Your task to perform on an android device: Go to Maps Image 0: 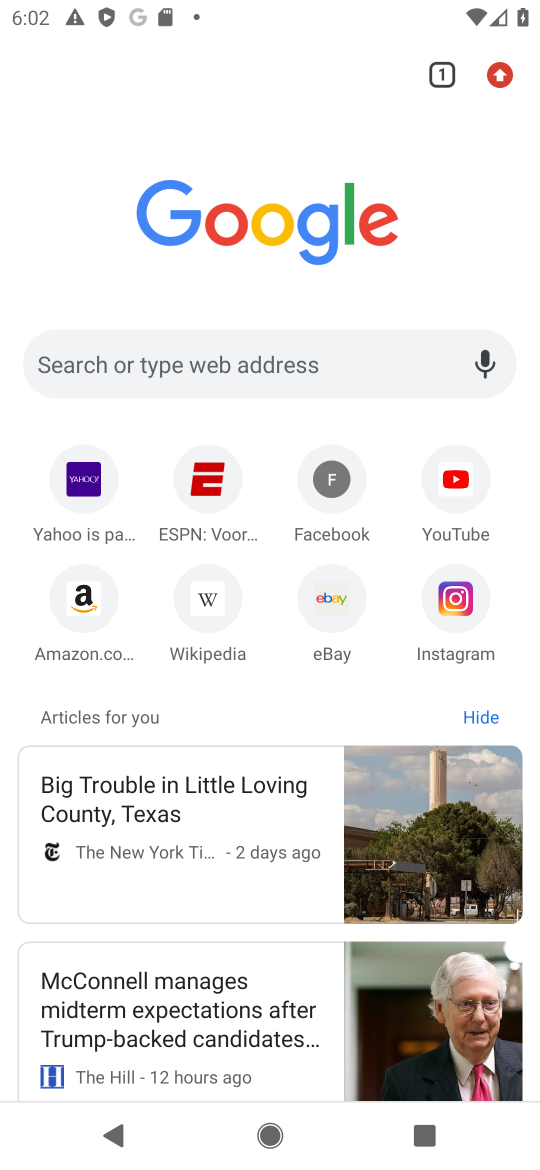
Step 0: press home button
Your task to perform on an android device: Go to Maps Image 1: 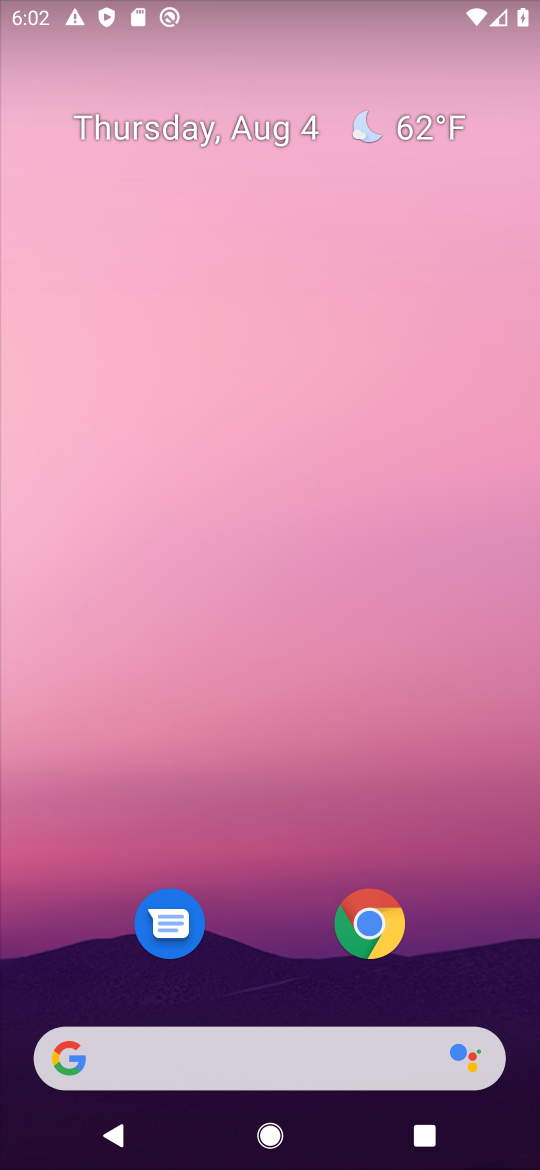
Step 1: drag from (496, 958) to (404, 396)
Your task to perform on an android device: Go to Maps Image 2: 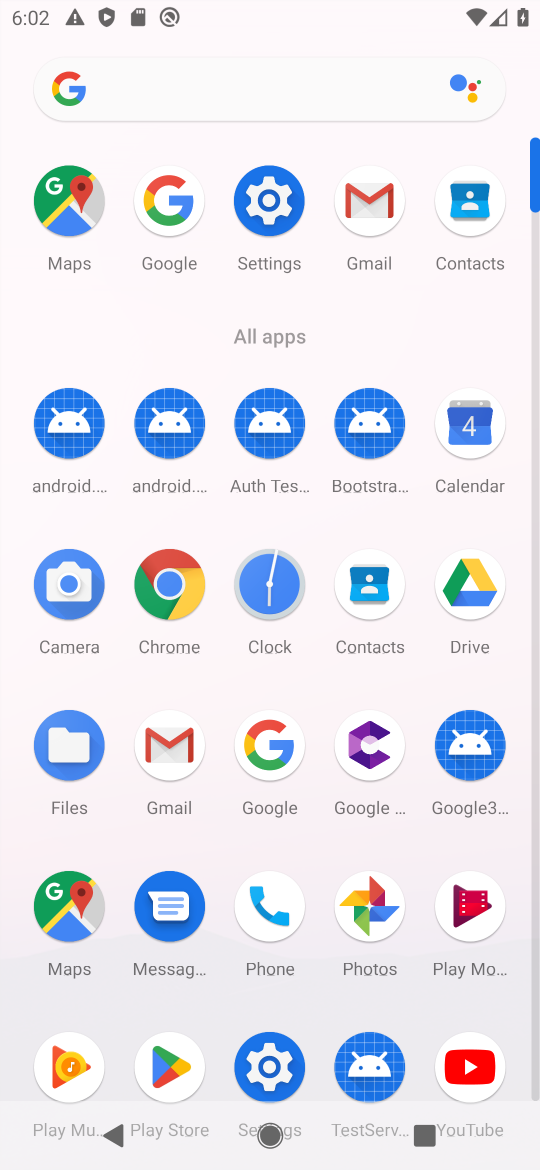
Step 2: click (79, 905)
Your task to perform on an android device: Go to Maps Image 3: 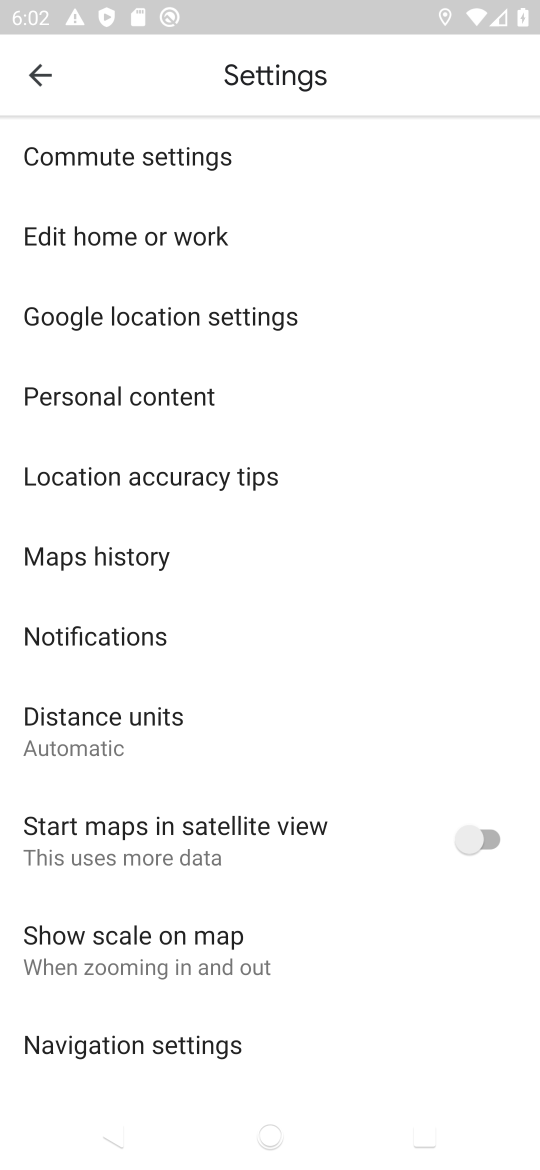
Step 3: press home button
Your task to perform on an android device: Go to Maps Image 4: 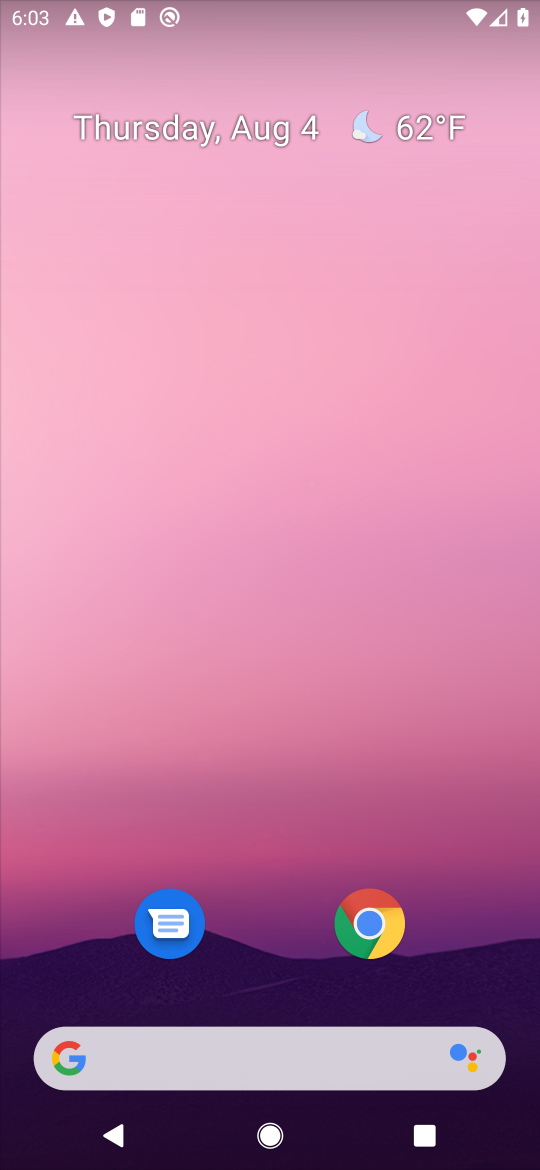
Step 4: drag from (292, 939) to (239, 459)
Your task to perform on an android device: Go to Maps Image 5: 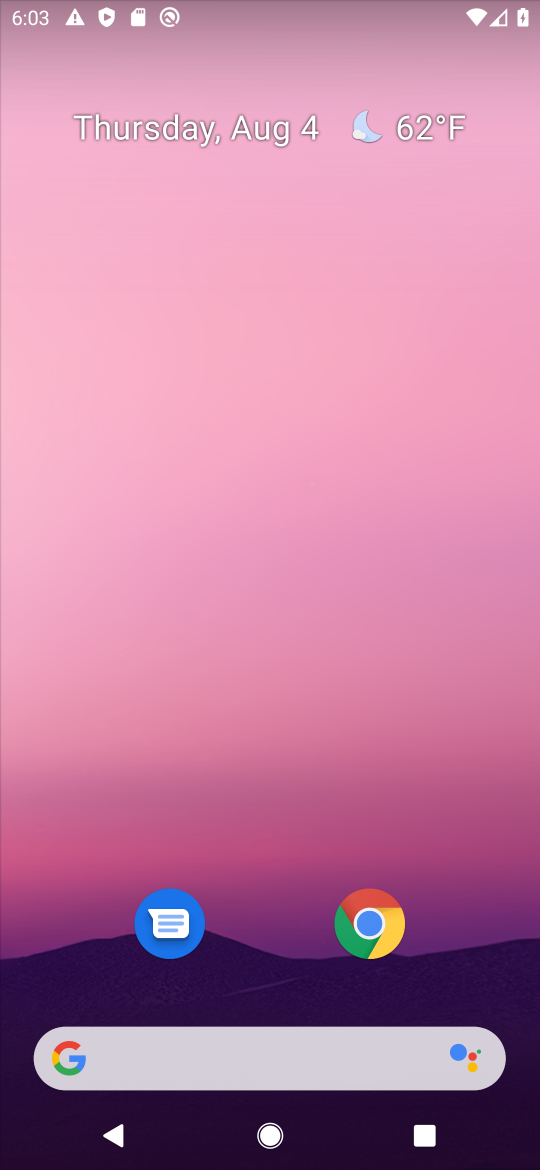
Step 5: drag from (266, 942) to (203, 339)
Your task to perform on an android device: Go to Maps Image 6: 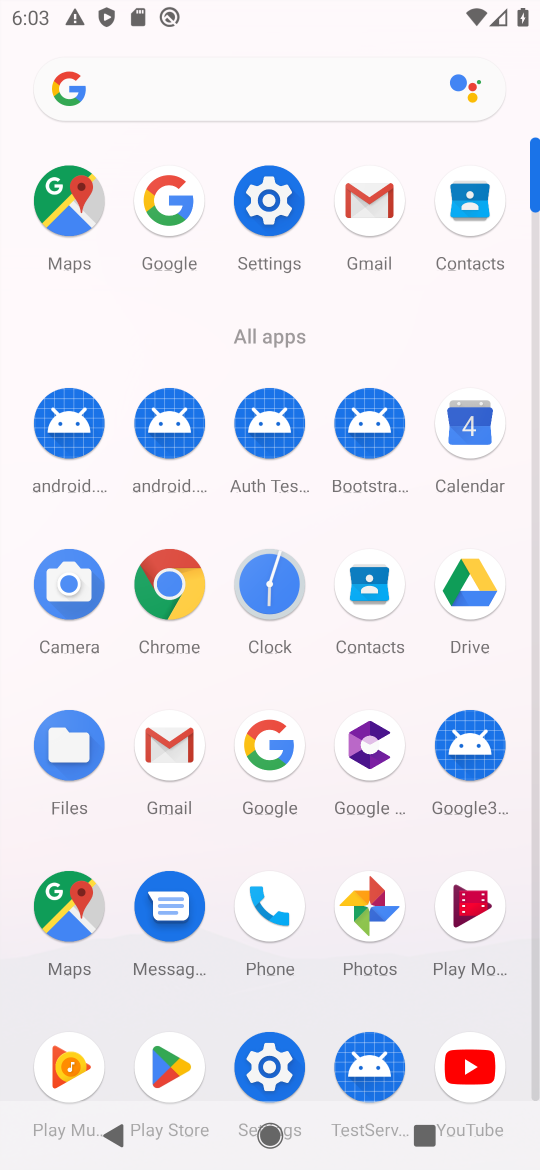
Step 6: click (65, 937)
Your task to perform on an android device: Go to Maps Image 7: 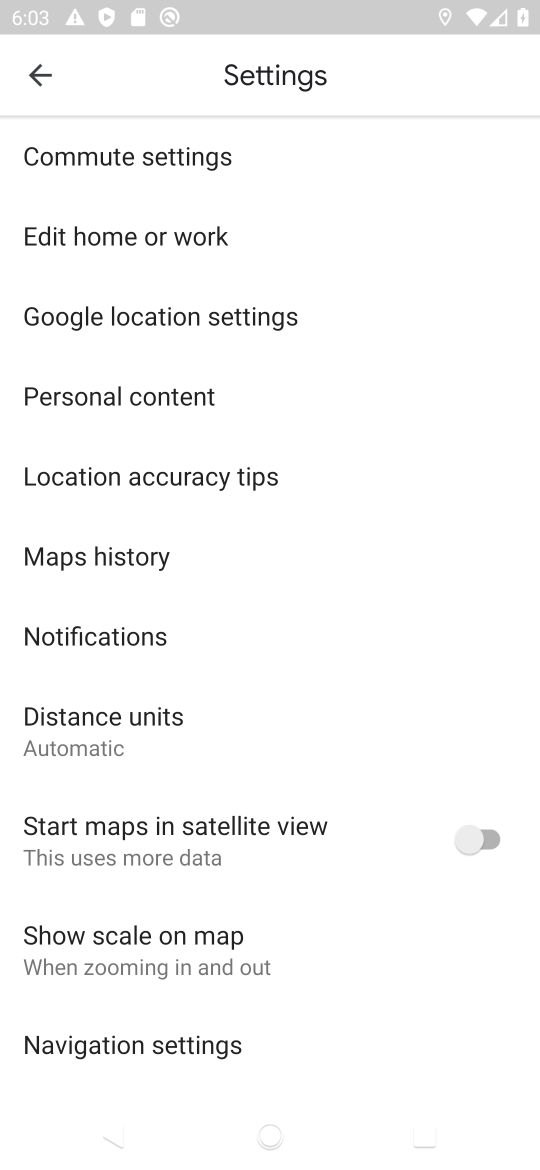
Step 7: click (45, 80)
Your task to perform on an android device: Go to Maps Image 8: 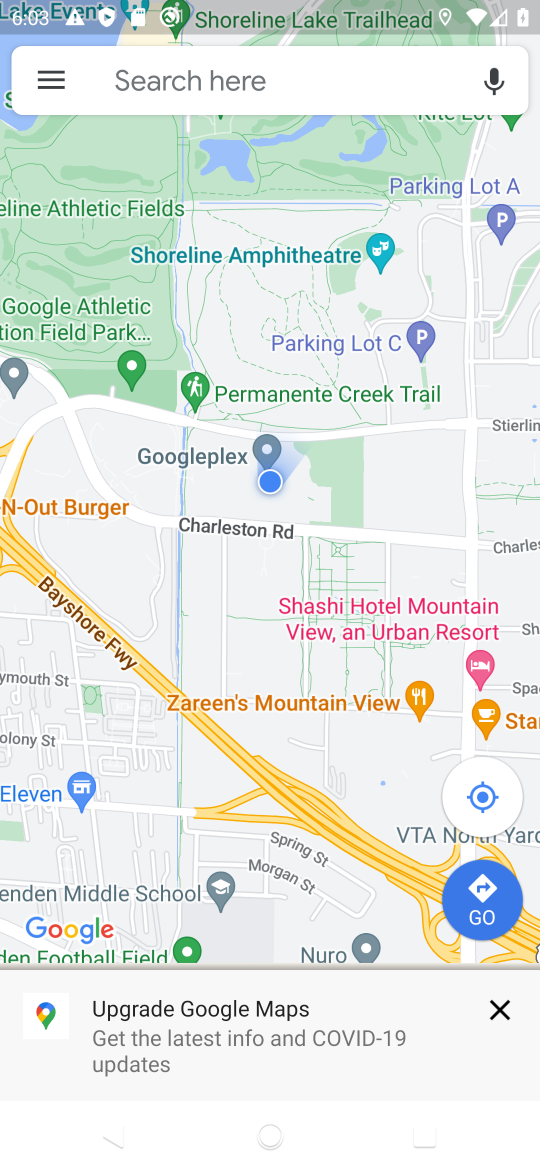
Step 8: task complete